Your task to perform on an android device: turn pop-ups off in chrome Image 0: 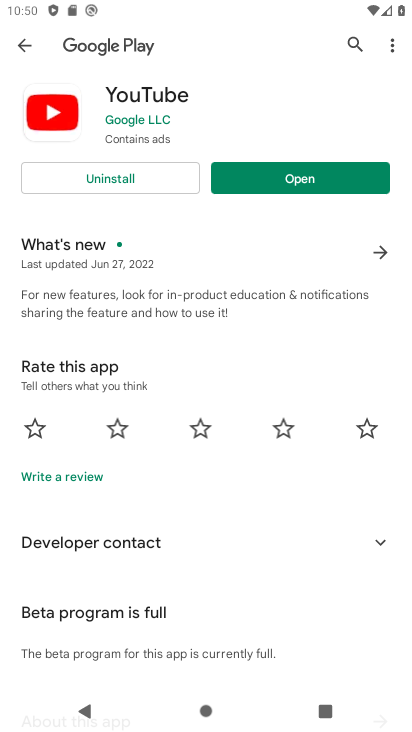
Step 0: press home button
Your task to perform on an android device: turn pop-ups off in chrome Image 1: 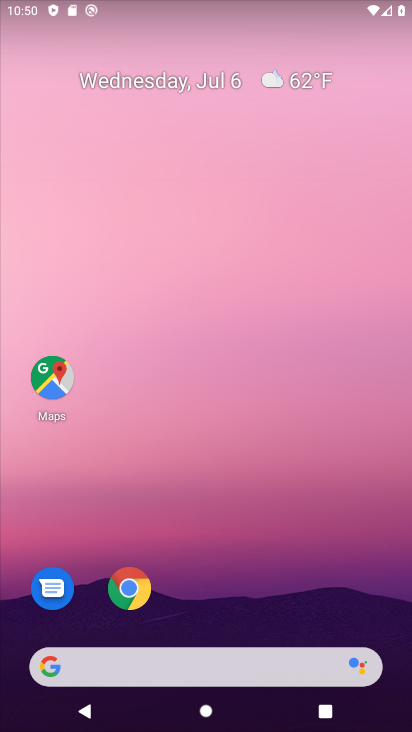
Step 1: click (130, 591)
Your task to perform on an android device: turn pop-ups off in chrome Image 2: 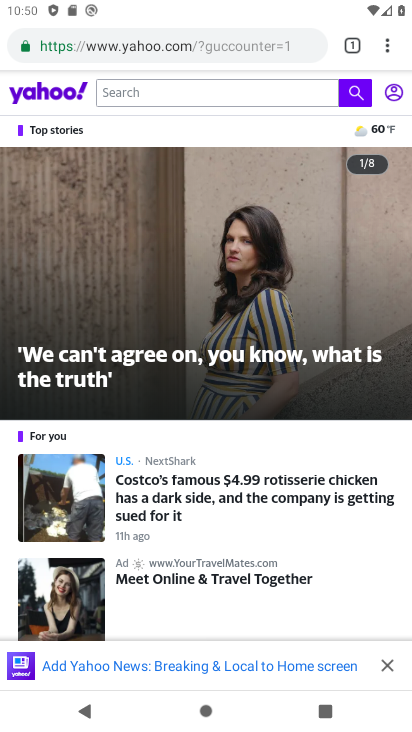
Step 2: click (388, 52)
Your task to perform on an android device: turn pop-ups off in chrome Image 3: 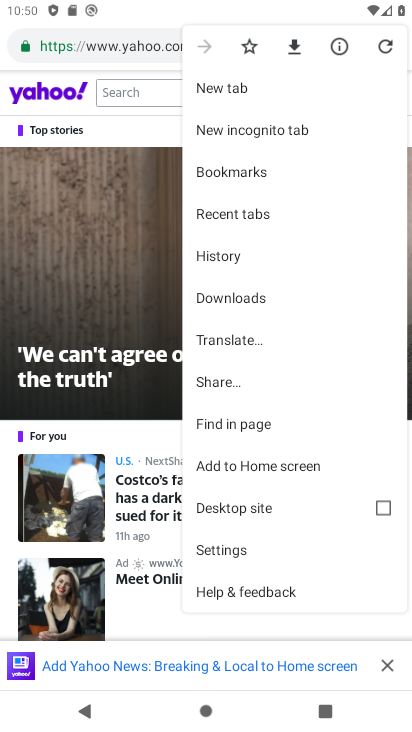
Step 3: click (230, 544)
Your task to perform on an android device: turn pop-ups off in chrome Image 4: 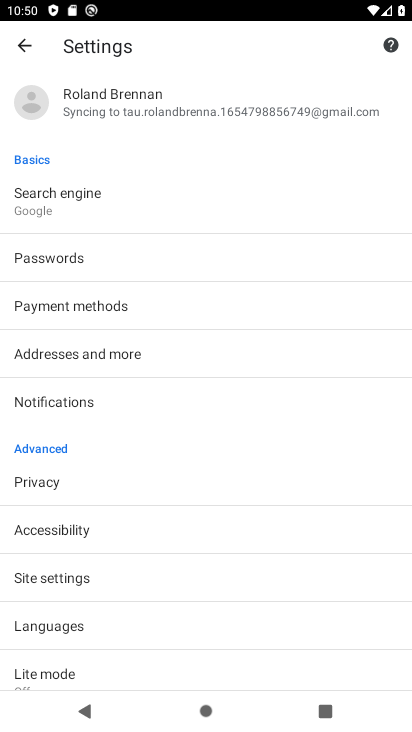
Step 4: click (54, 586)
Your task to perform on an android device: turn pop-ups off in chrome Image 5: 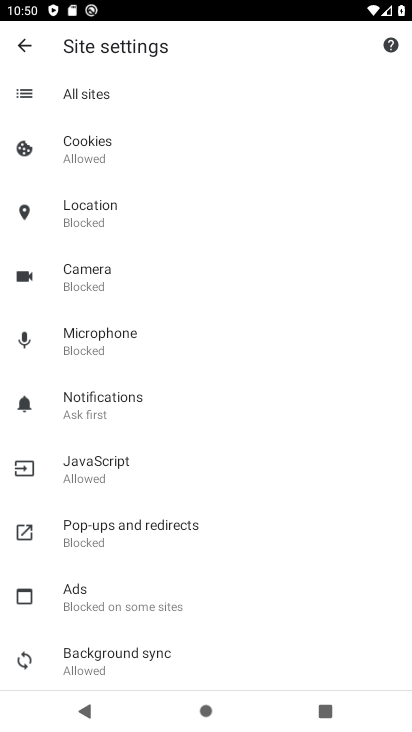
Step 5: click (98, 529)
Your task to perform on an android device: turn pop-ups off in chrome Image 6: 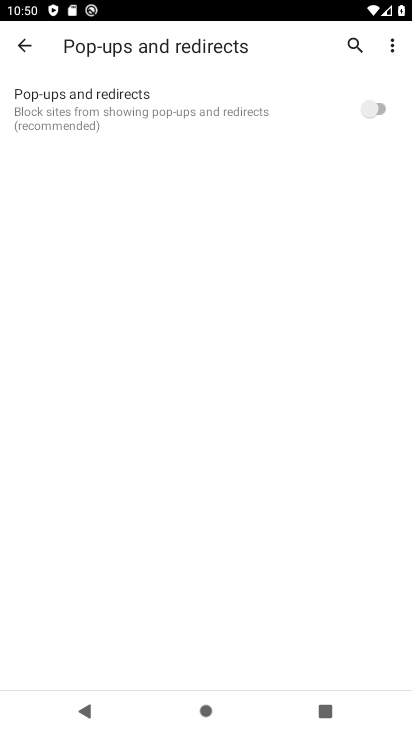
Step 6: task complete